Your task to perform on an android device: manage bookmarks in the chrome app Image 0: 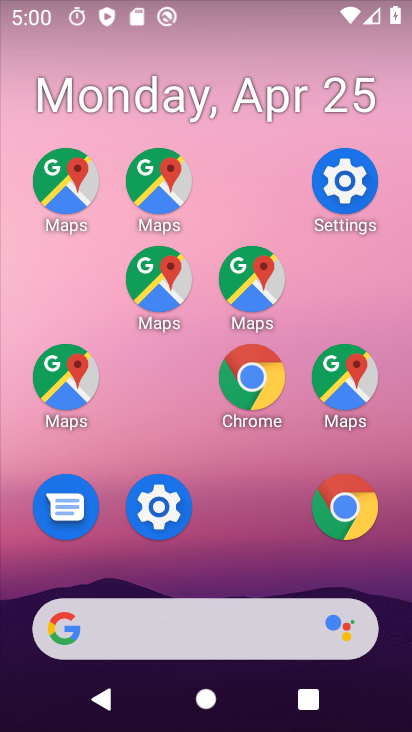
Step 0: drag from (265, 688) to (190, 96)
Your task to perform on an android device: manage bookmarks in the chrome app Image 1: 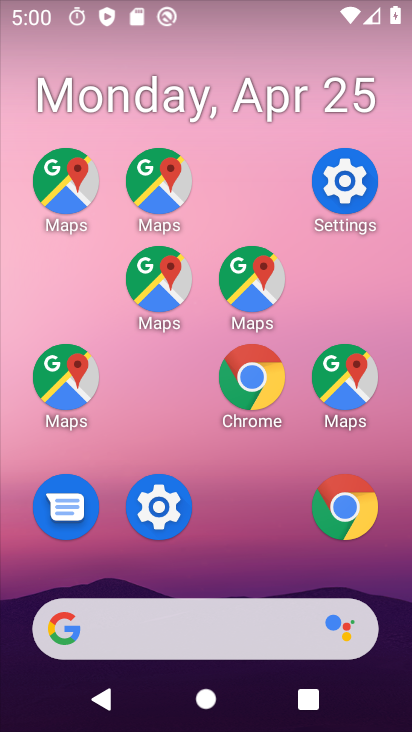
Step 1: drag from (245, 624) to (153, 78)
Your task to perform on an android device: manage bookmarks in the chrome app Image 2: 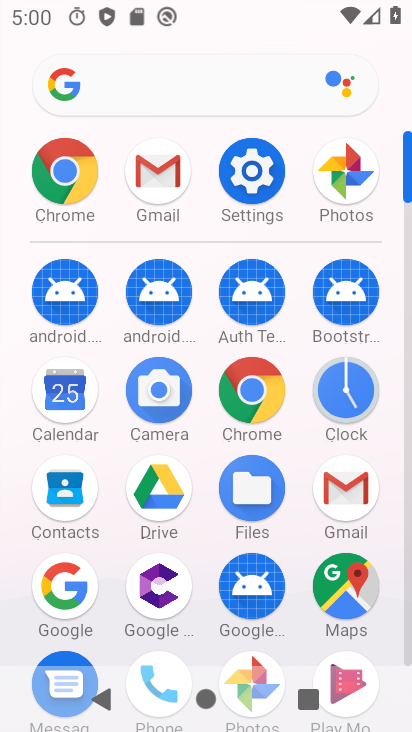
Step 2: click (53, 164)
Your task to perform on an android device: manage bookmarks in the chrome app Image 3: 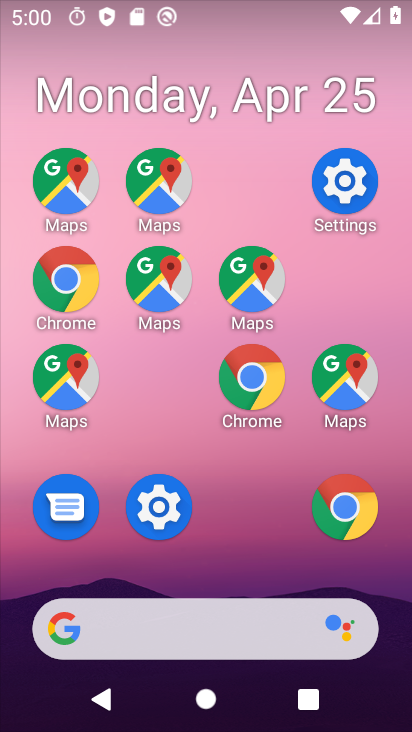
Step 3: drag from (251, 680) to (107, 61)
Your task to perform on an android device: manage bookmarks in the chrome app Image 4: 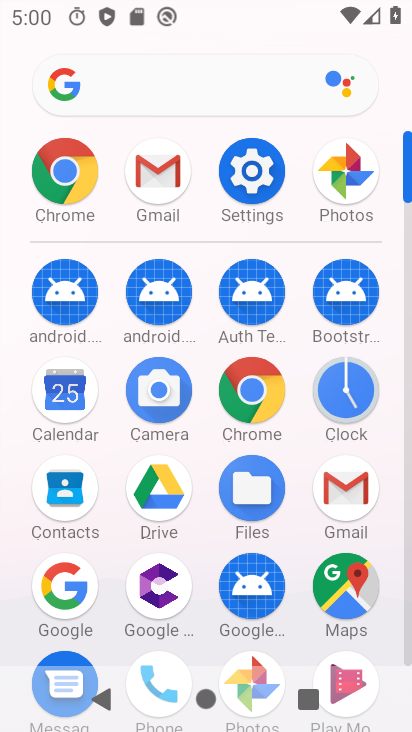
Step 4: click (68, 170)
Your task to perform on an android device: manage bookmarks in the chrome app Image 5: 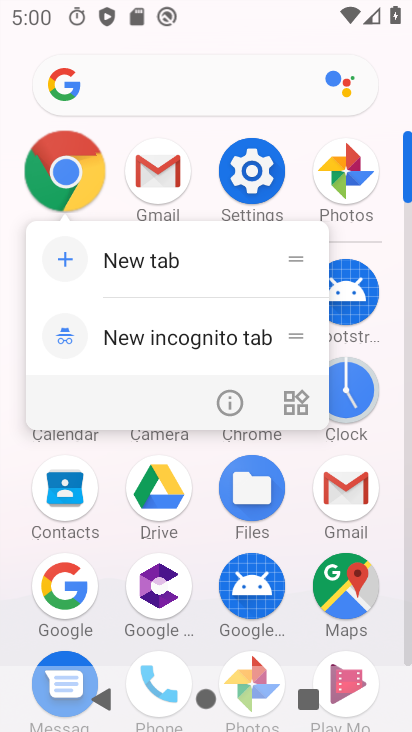
Step 5: click (69, 169)
Your task to perform on an android device: manage bookmarks in the chrome app Image 6: 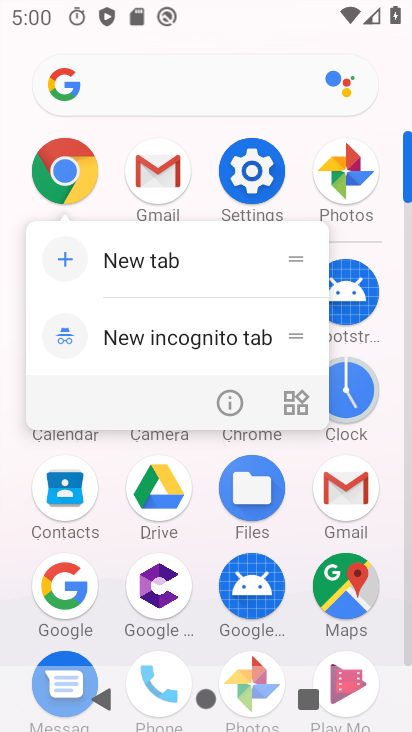
Step 6: click (127, 256)
Your task to perform on an android device: manage bookmarks in the chrome app Image 7: 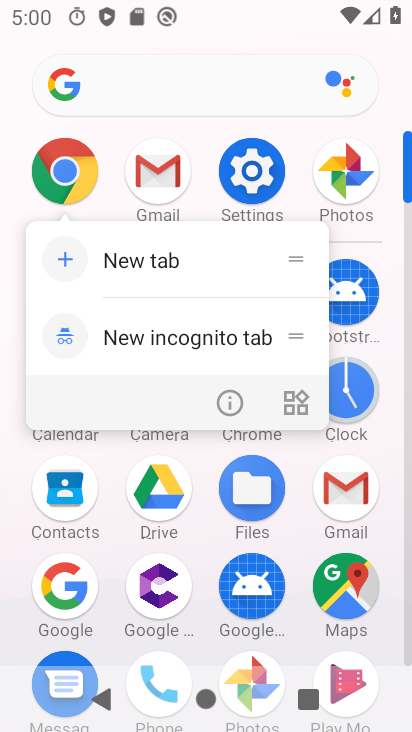
Step 7: click (127, 256)
Your task to perform on an android device: manage bookmarks in the chrome app Image 8: 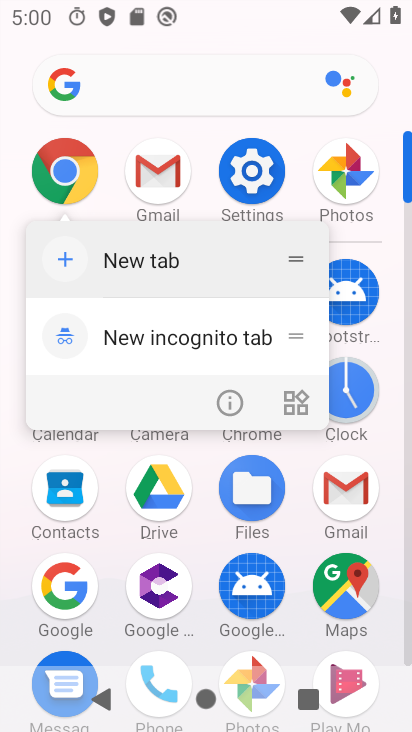
Step 8: click (124, 239)
Your task to perform on an android device: manage bookmarks in the chrome app Image 9: 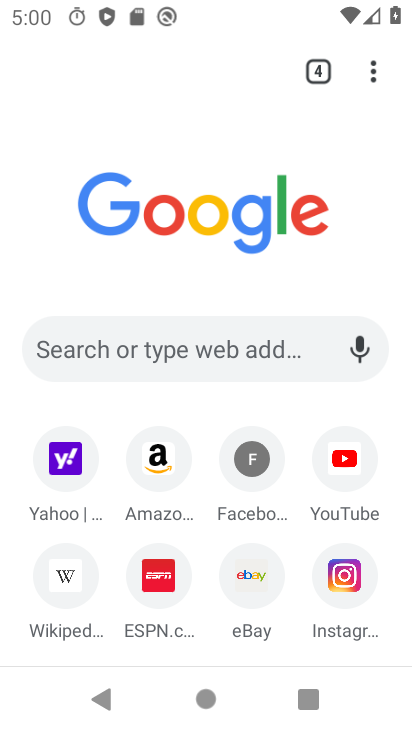
Step 9: drag from (368, 64) to (150, 175)
Your task to perform on an android device: manage bookmarks in the chrome app Image 10: 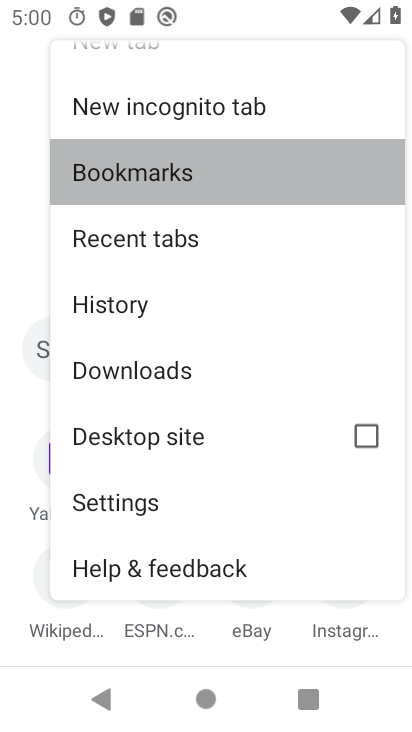
Step 10: click (135, 190)
Your task to perform on an android device: manage bookmarks in the chrome app Image 11: 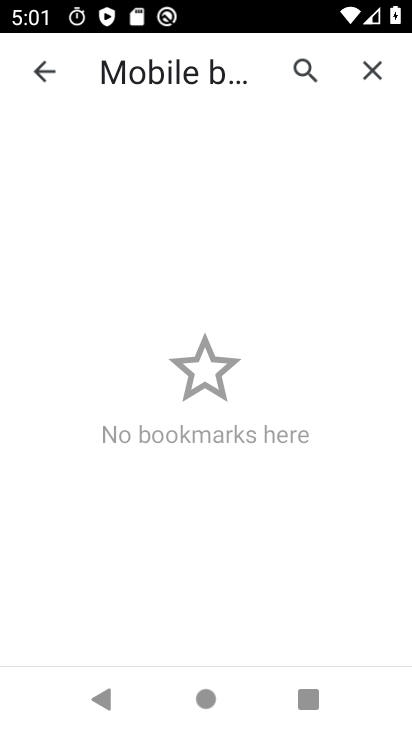
Step 11: task complete